Your task to perform on an android device: search for starred emails in the gmail app Image 0: 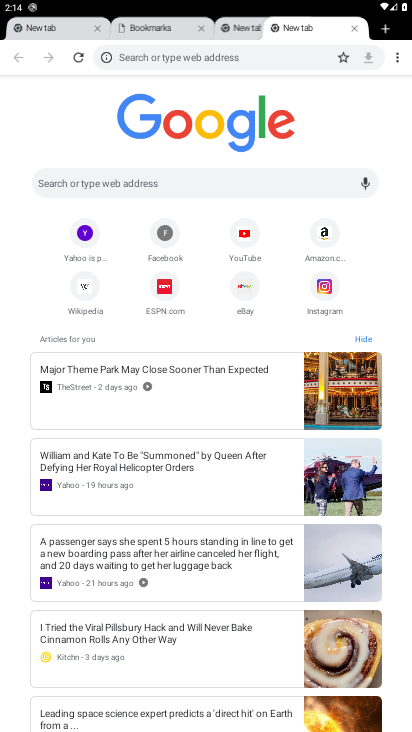
Step 0: press home button
Your task to perform on an android device: search for starred emails in the gmail app Image 1: 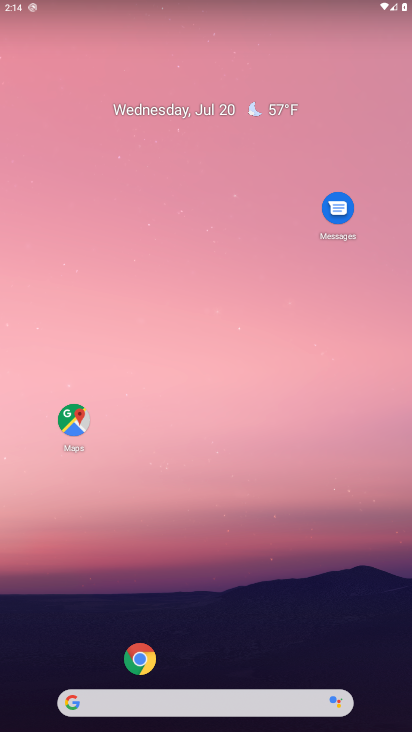
Step 1: drag from (36, 693) to (354, 54)
Your task to perform on an android device: search for starred emails in the gmail app Image 2: 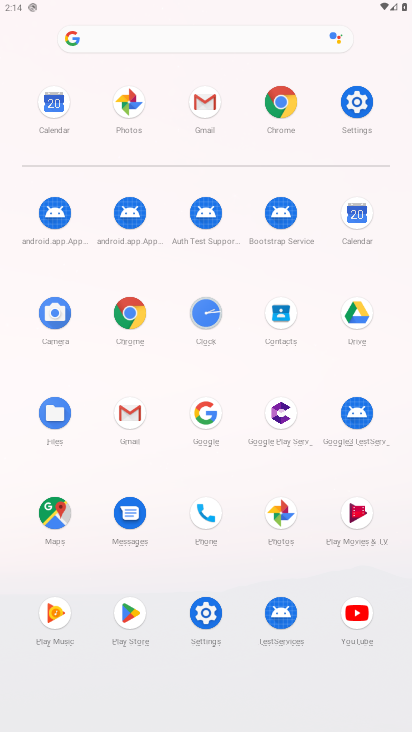
Step 2: click (124, 407)
Your task to perform on an android device: search for starred emails in the gmail app Image 3: 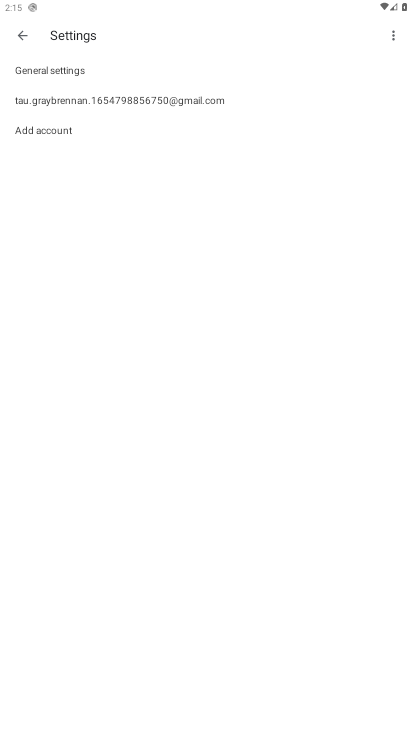
Step 3: click (20, 38)
Your task to perform on an android device: search for starred emails in the gmail app Image 4: 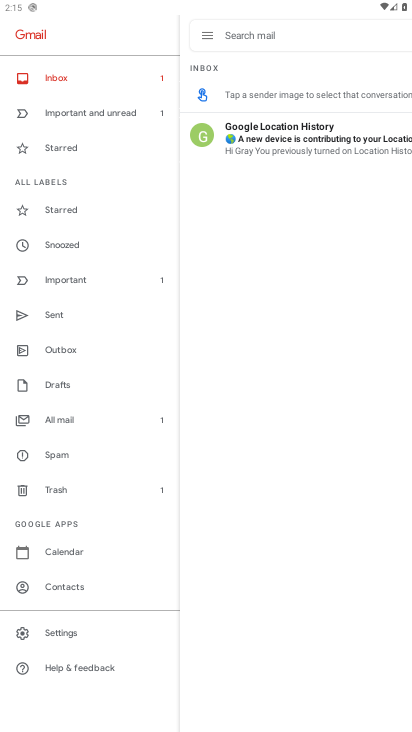
Step 4: click (56, 152)
Your task to perform on an android device: search for starred emails in the gmail app Image 5: 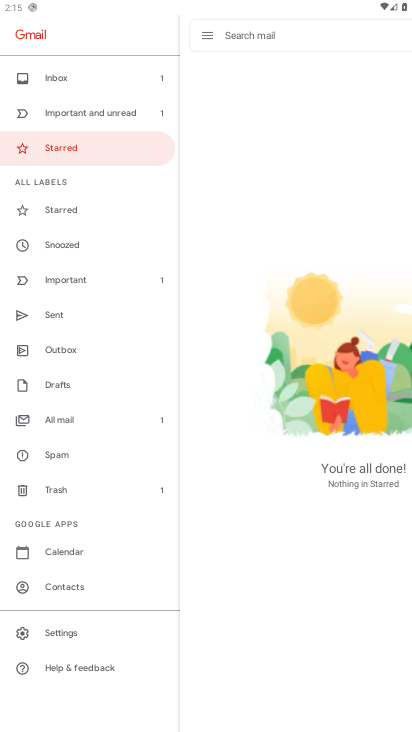
Step 5: task complete